Your task to perform on an android device: Go to notification settings Image 0: 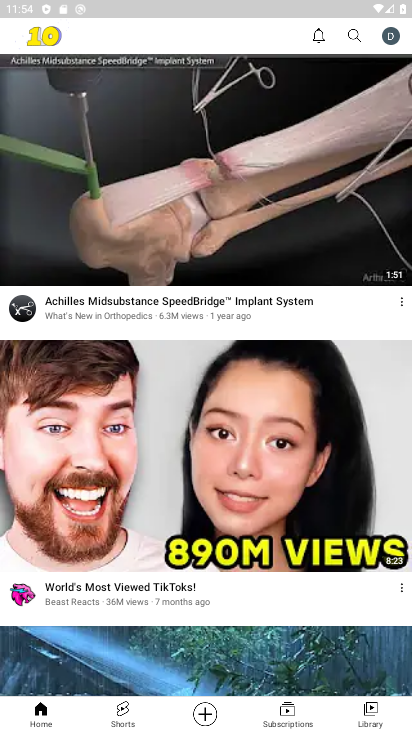
Step 0: press home button
Your task to perform on an android device: Go to notification settings Image 1: 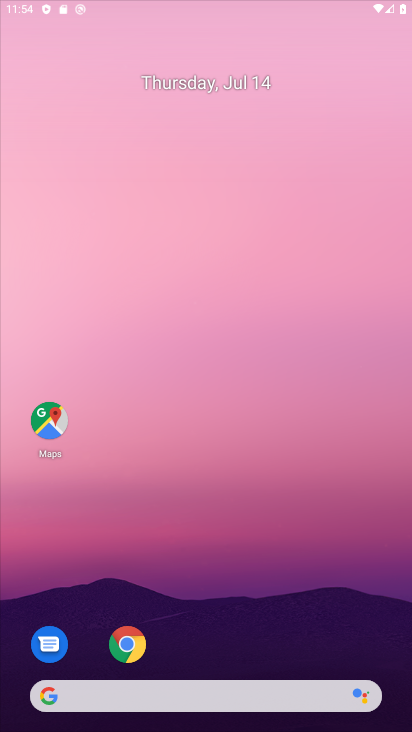
Step 1: drag from (338, 605) to (243, 20)
Your task to perform on an android device: Go to notification settings Image 2: 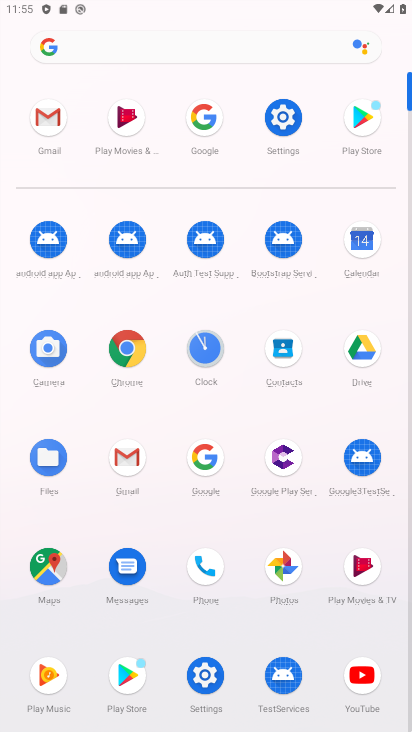
Step 2: click (208, 668)
Your task to perform on an android device: Go to notification settings Image 3: 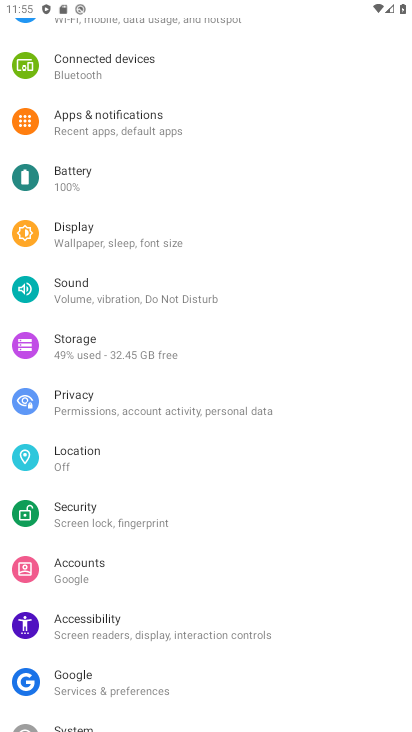
Step 3: click (117, 125)
Your task to perform on an android device: Go to notification settings Image 4: 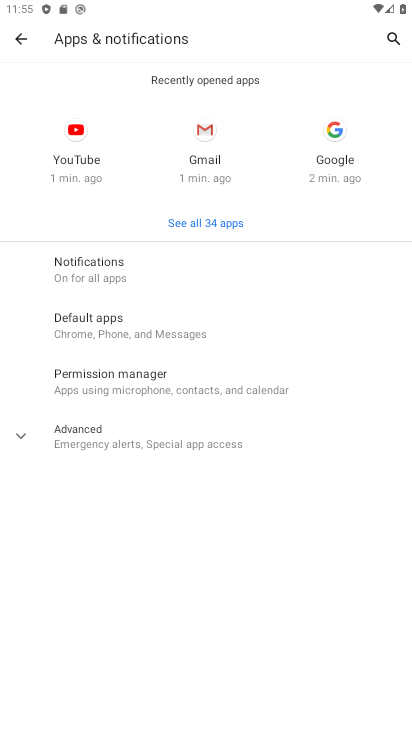
Step 4: click (105, 259)
Your task to perform on an android device: Go to notification settings Image 5: 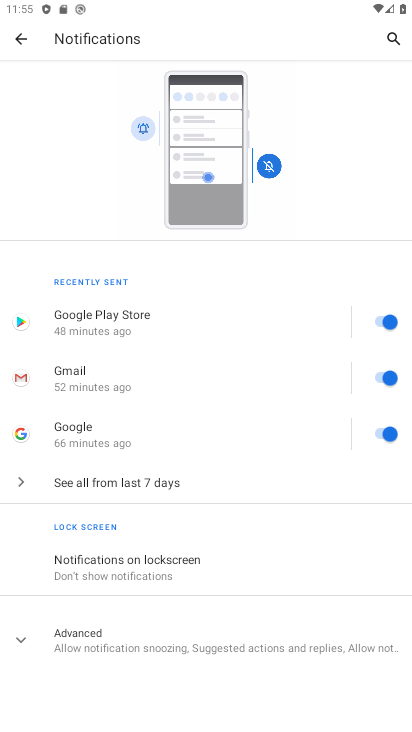
Step 5: task complete